Your task to perform on an android device: Open Google Chrome and click the shortcut for Amazon.com Image 0: 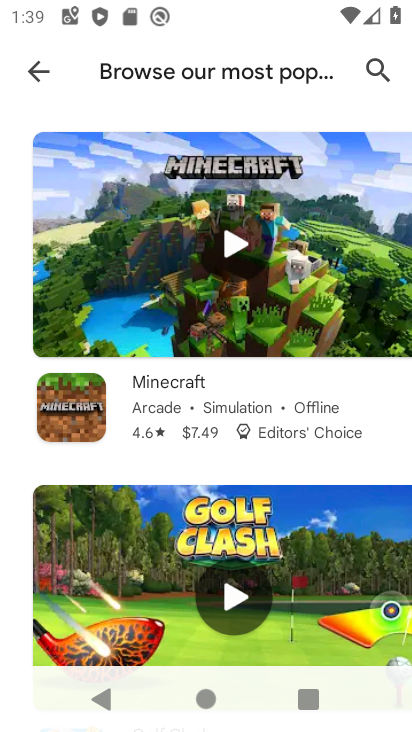
Step 0: press home button
Your task to perform on an android device: Open Google Chrome and click the shortcut for Amazon.com Image 1: 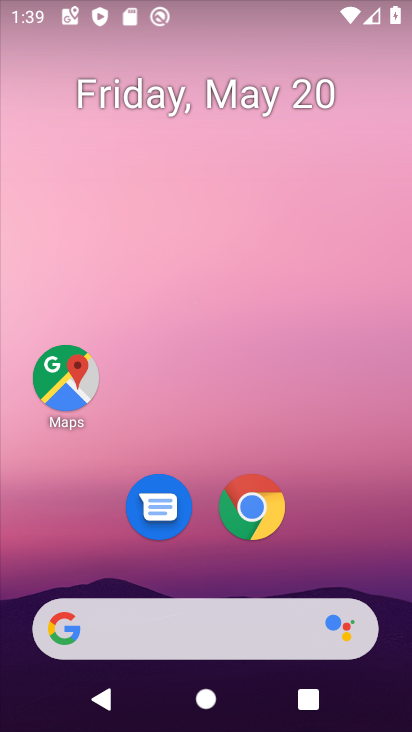
Step 1: click (254, 504)
Your task to perform on an android device: Open Google Chrome and click the shortcut for Amazon.com Image 2: 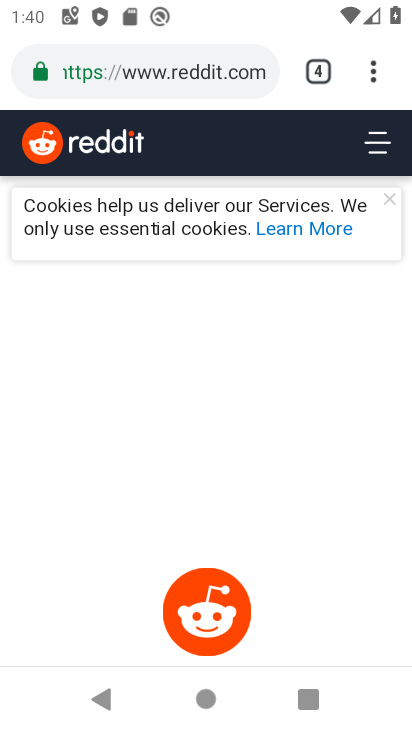
Step 2: click (376, 76)
Your task to perform on an android device: Open Google Chrome and click the shortcut for Amazon.com Image 3: 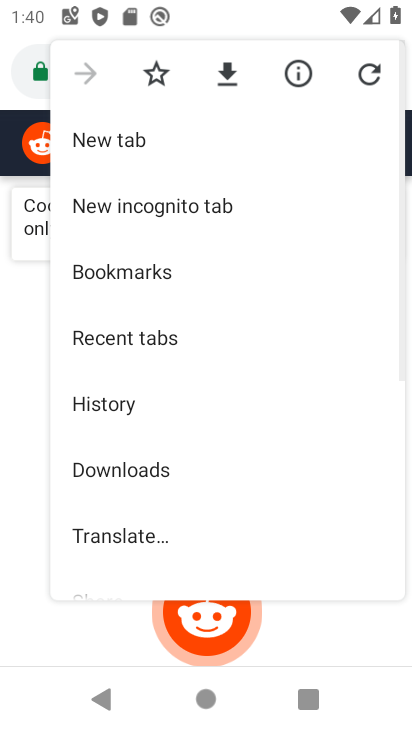
Step 3: click (116, 136)
Your task to perform on an android device: Open Google Chrome and click the shortcut for Amazon.com Image 4: 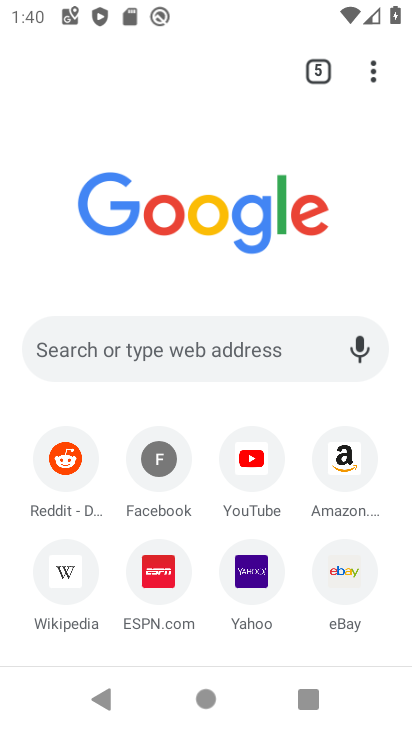
Step 4: click (347, 475)
Your task to perform on an android device: Open Google Chrome and click the shortcut for Amazon.com Image 5: 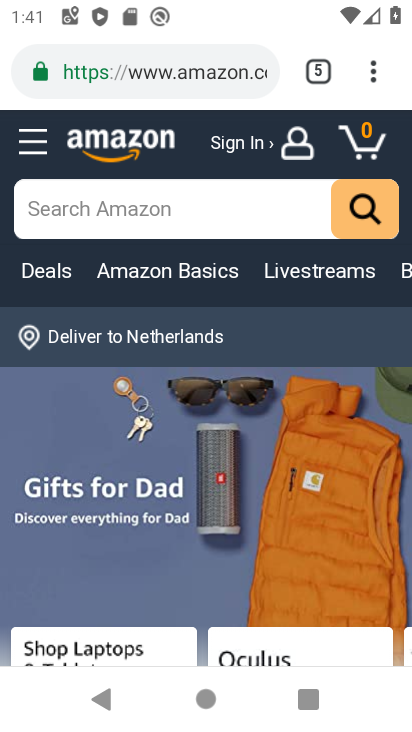
Step 5: task complete